Your task to perform on an android device: turn on location history Image 0: 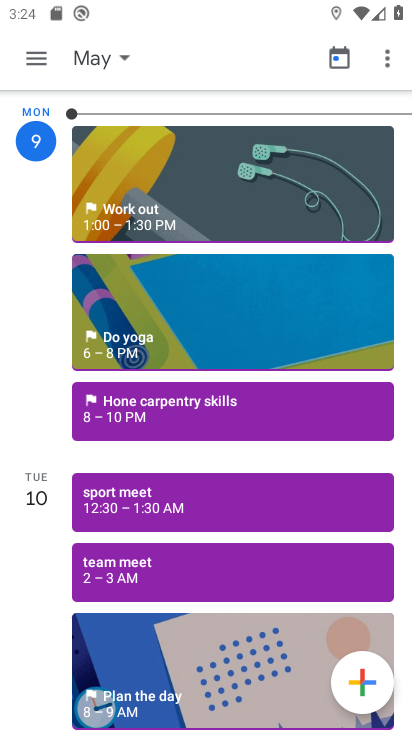
Step 0: press home button
Your task to perform on an android device: turn on location history Image 1: 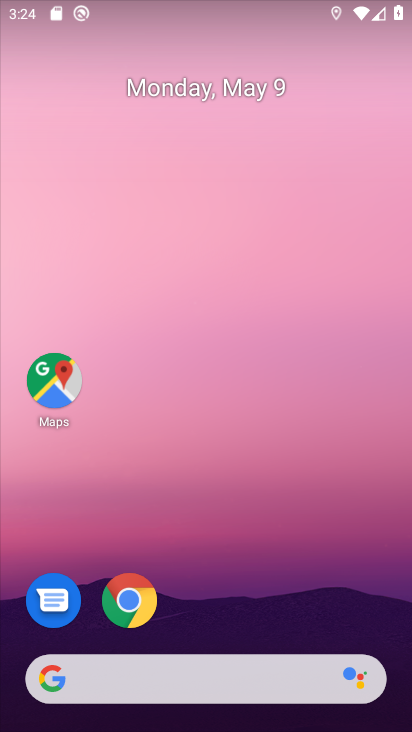
Step 1: drag from (207, 604) to (316, 112)
Your task to perform on an android device: turn on location history Image 2: 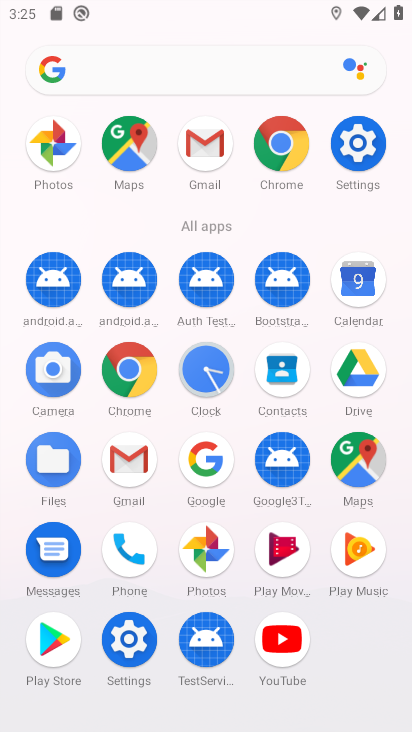
Step 2: click (129, 670)
Your task to perform on an android device: turn on location history Image 3: 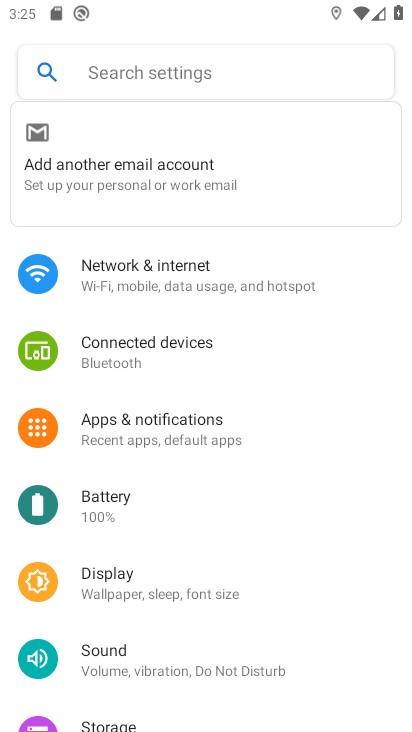
Step 3: drag from (167, 680) to (230, 306)
Your task to perform on an android device: turn on location history Image 4: 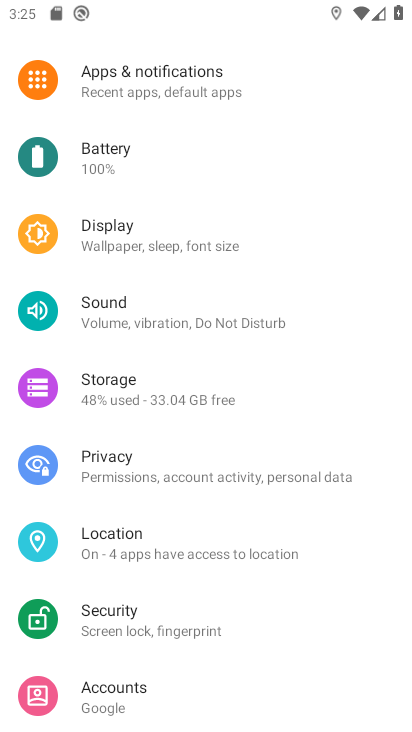
Step 4: click (154, 557)
Your task to perform on an android device: turn on location history Image 5: 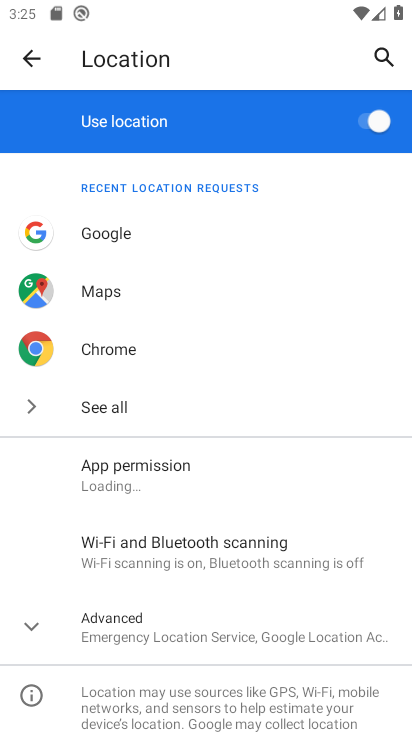
Step 5: click (161, 639)
Your task to perform on an android device: turn on location history Image 6: 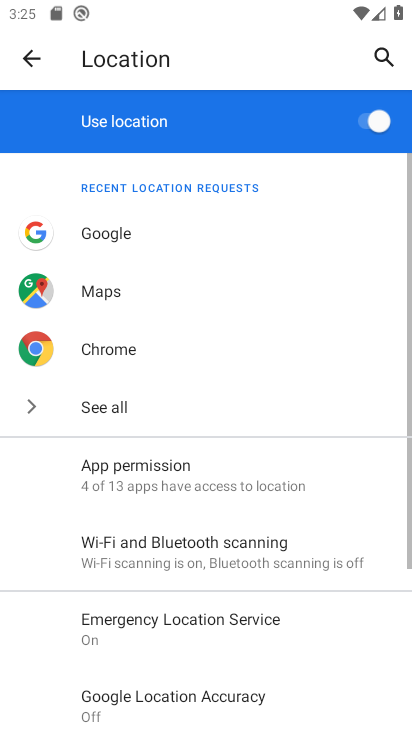
Step 6: drag from (230, 610) to (260, 318)
Your task to perform on an android device: turn on location history Image 7: 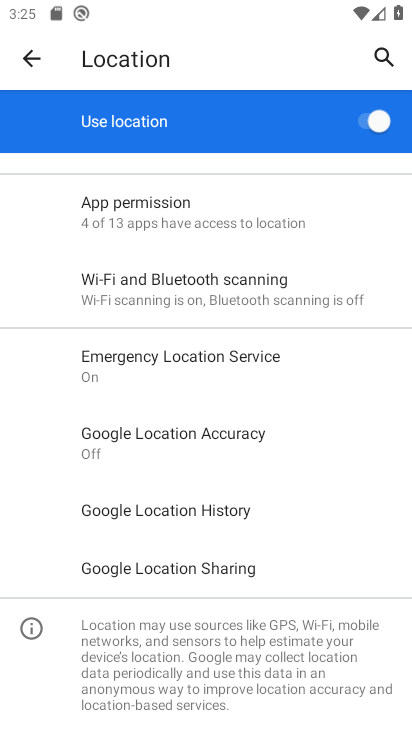
Step 7: click (160, 518)
Your task to perform on an android device: turn on location history Image 8: 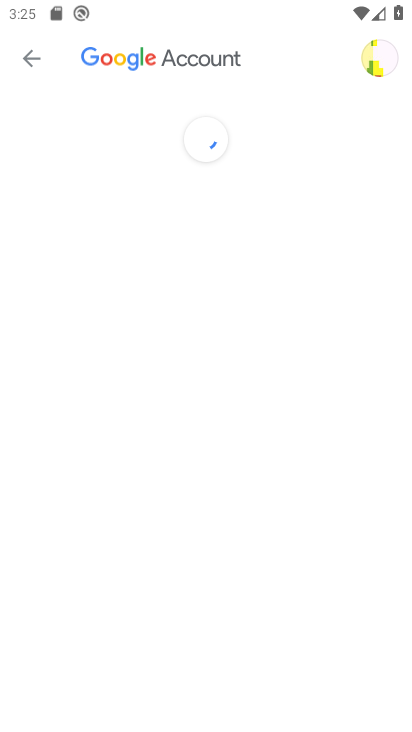
Step 8: task complete